Your task to perform on an android device: Turn on the flashlight Image 0: 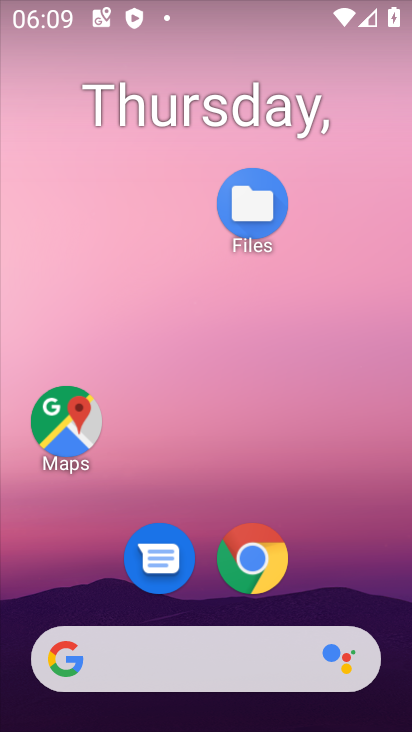
Step 0: drag from (308, 580) to (307, 256)
Your task to perform on an android device: Turn on the flashlight Image 1: 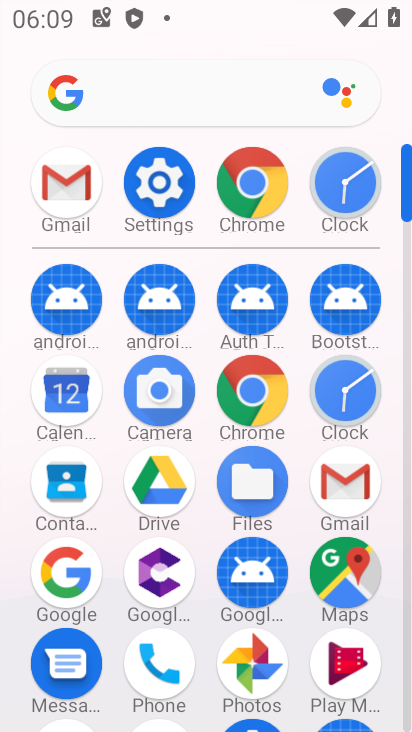
Step 1: click (171, 212)
Your task to perform on an android device: Turn on the flashlight Image 2: 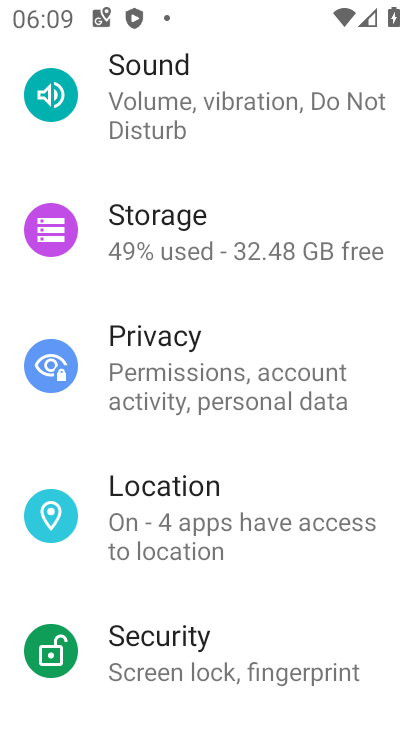
Step 2: task complete